Your task to perform on an android device: turn on showing notifications on the lock screen Image 0: 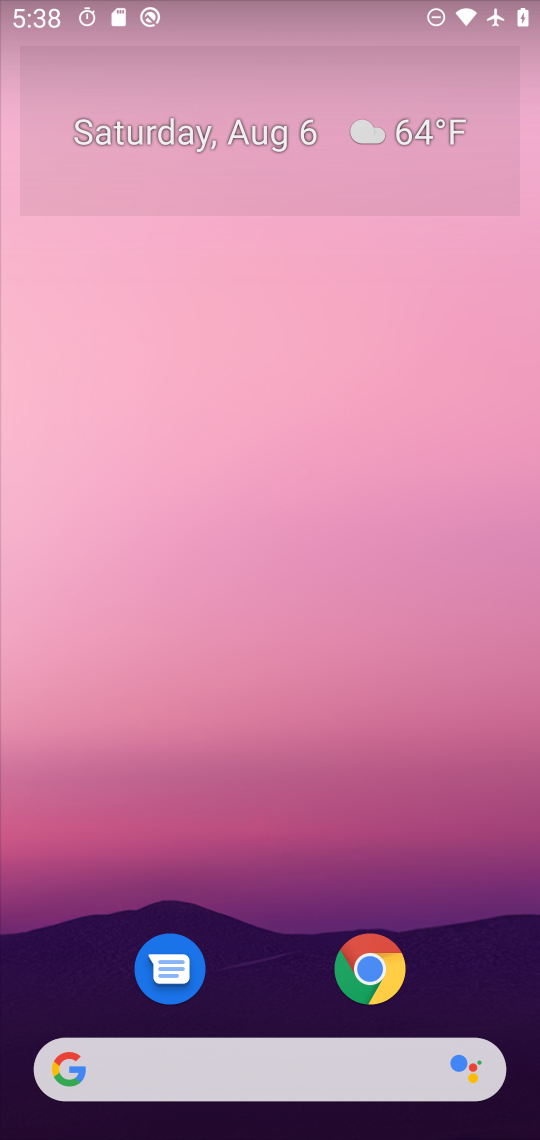
Step 0: drag from (274, 1010) to (305, 484)
Your task to perform on an android device: turn on showing notifications on the lock screen Image 1: 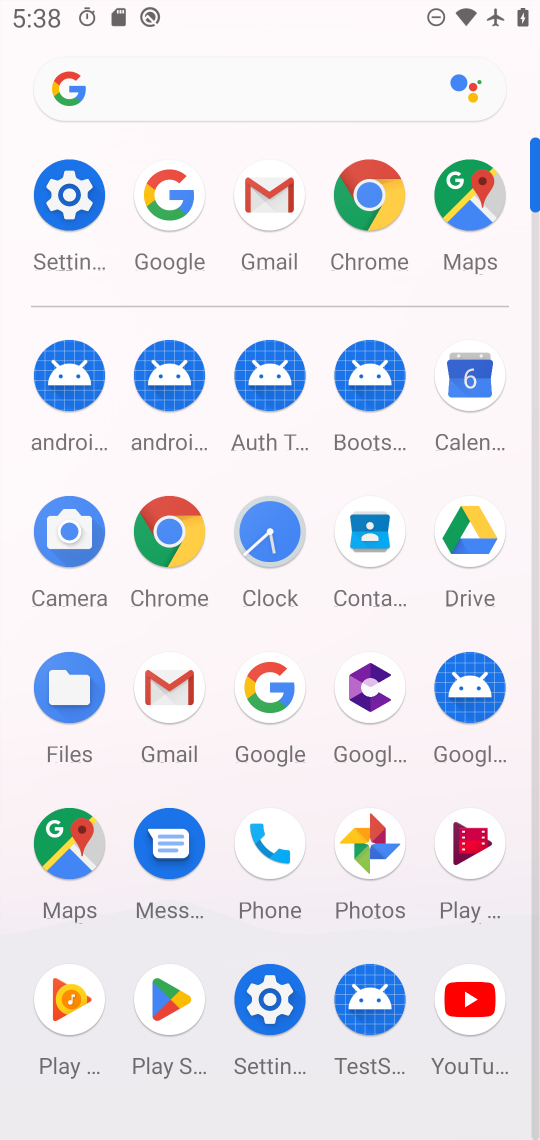
Step 1: click (70, 195)
Your task to perform on an android device: turn on showing notifications on the lock screen Image 2: 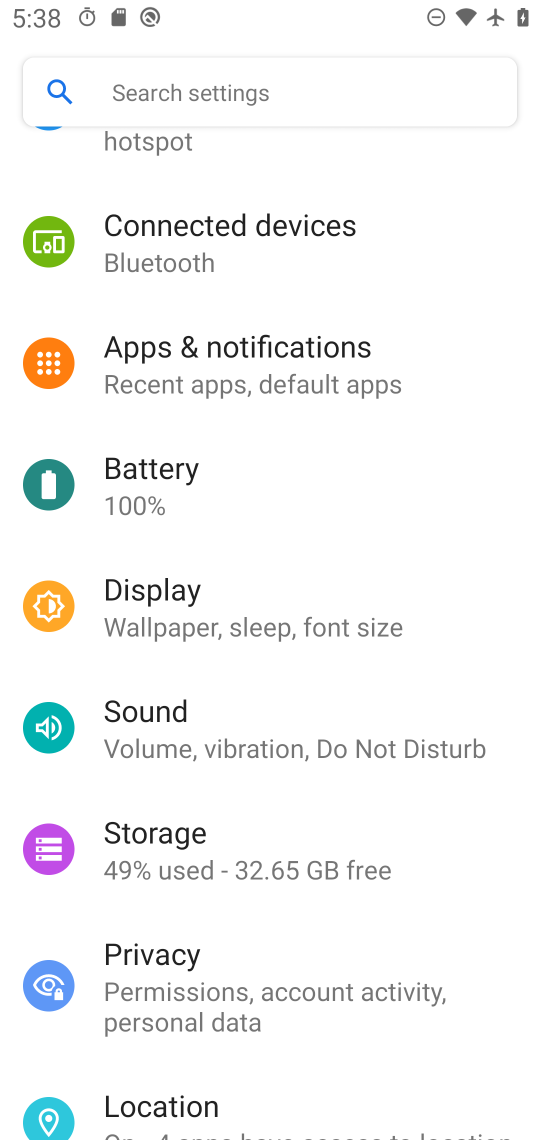
Step 2: click (190, 368)
Your task to perform on an android device: turn on showing notifications on the lock screen Image 3: 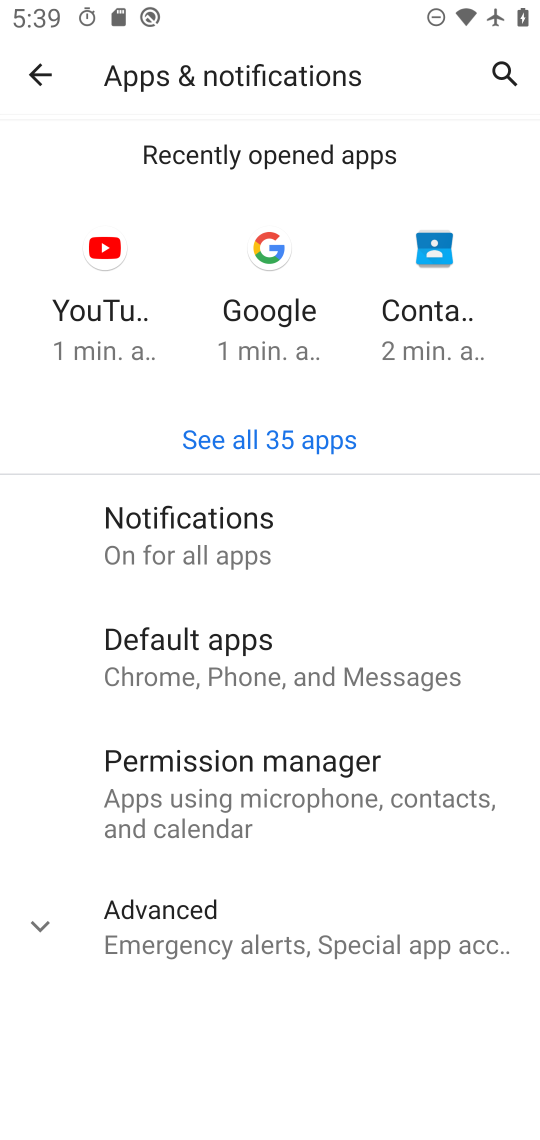
Step 3: click (195, 539)
Your task to perform on an android device: turn on showing notifications on the lock screen Image 4: 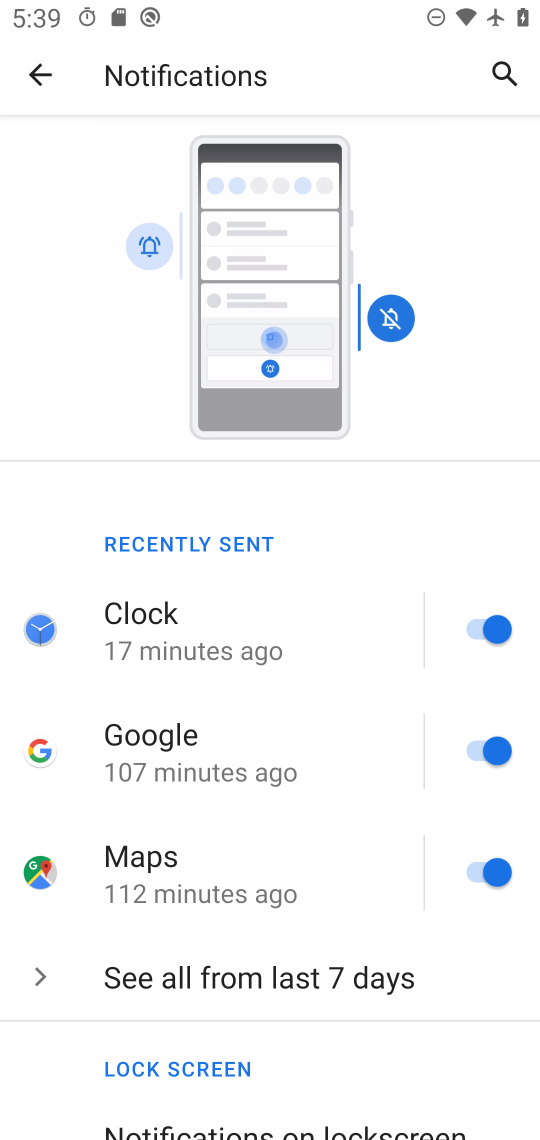
Step 4: drag from (325, 1047) to (303, 722)
Your task to perform on an android device: turn on showing notifications on the lock screen Image 5: 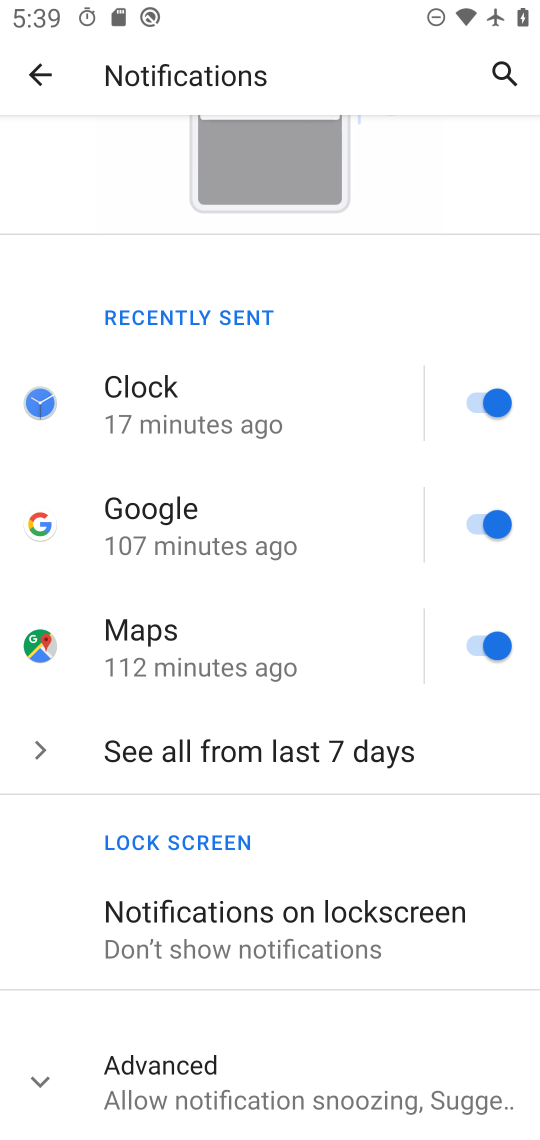
Step 5: drag from (394, 1042) to (387, 616)
Your task to perform on an android device: turn on showing notifications on the lock screen Image 6: 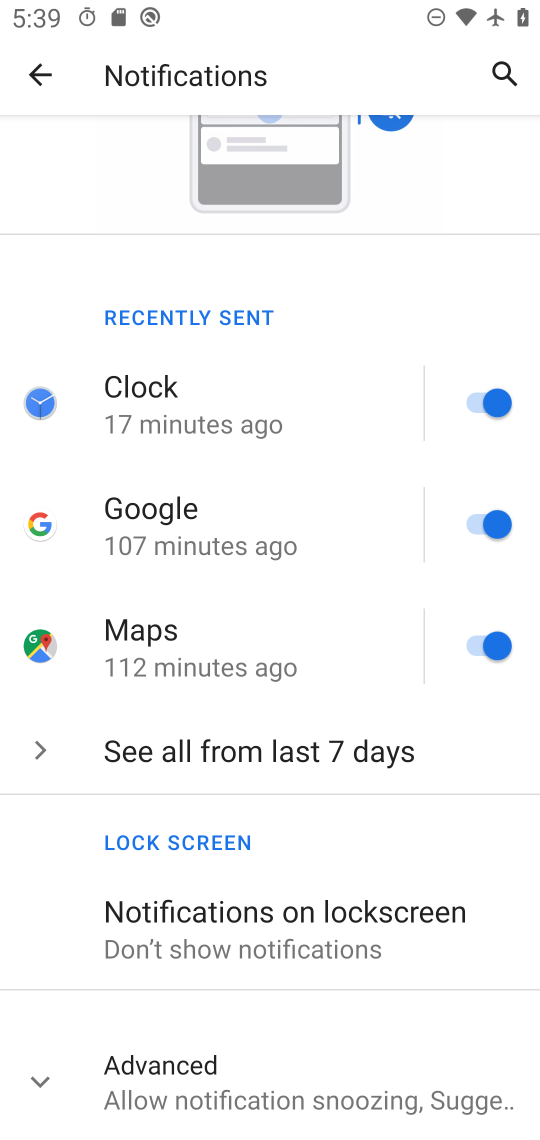
Step 6: click (252, 914)
Your task to perform on an android device: turn on showing notifications on the lock screen Image 7: 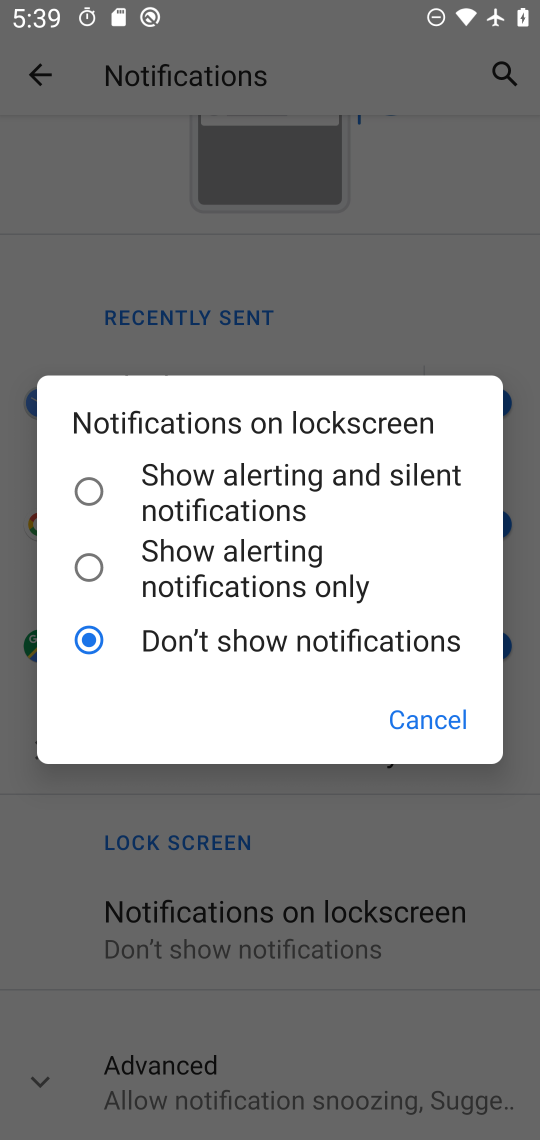
Step 7: click (93, 499)
Your task to perform on an android device: turn on showing notifications on the lock screen Image 8: 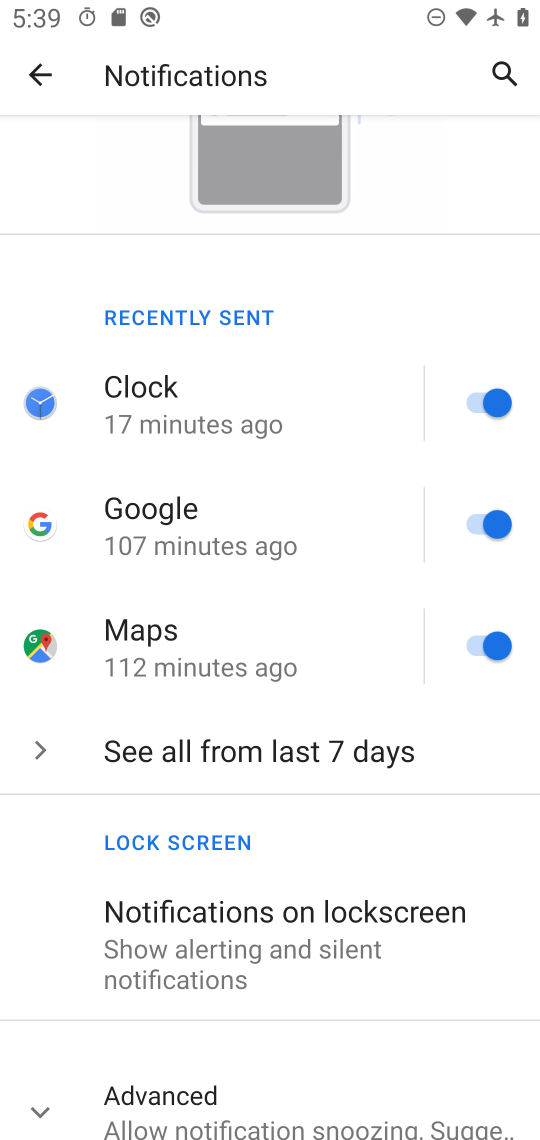
Step 8: task complete